Your task to perform on an android device: Open calendar and show me the fourth week of next month Image 0: 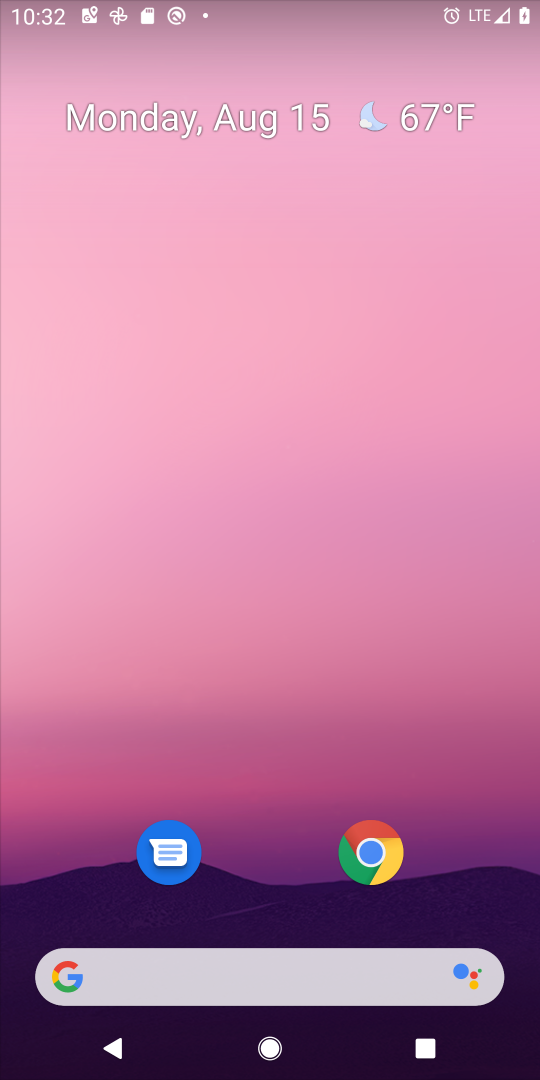
Step 0: drag from (258, 972) to (405, 43)
Your task to perform on an android device: Open calendar and show me the fourth week of next month Image 1: 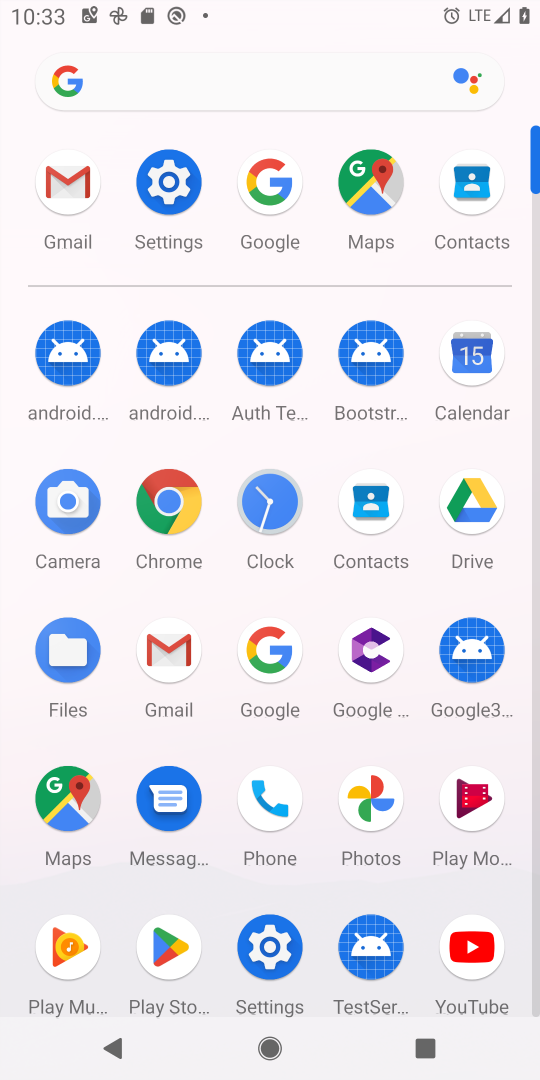
Step 1: click (467, 357)
Your task to perform on an android device: Open calendar and show me the fourth week of next month Image 2: 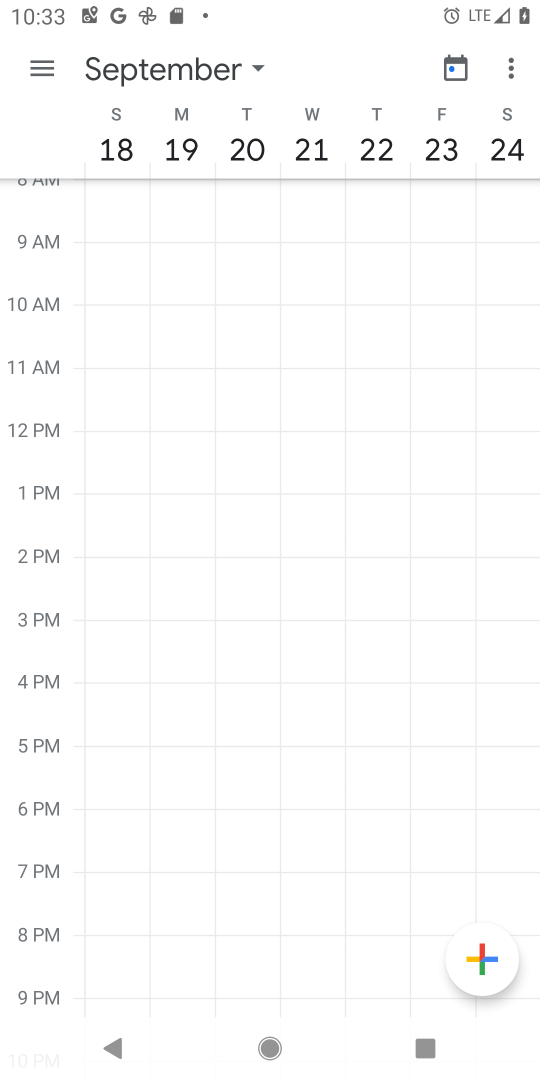
Step 2: click (457, 70)
Your task to perform on an android device: Open calendar and show me the fourth week of next month Image 3: 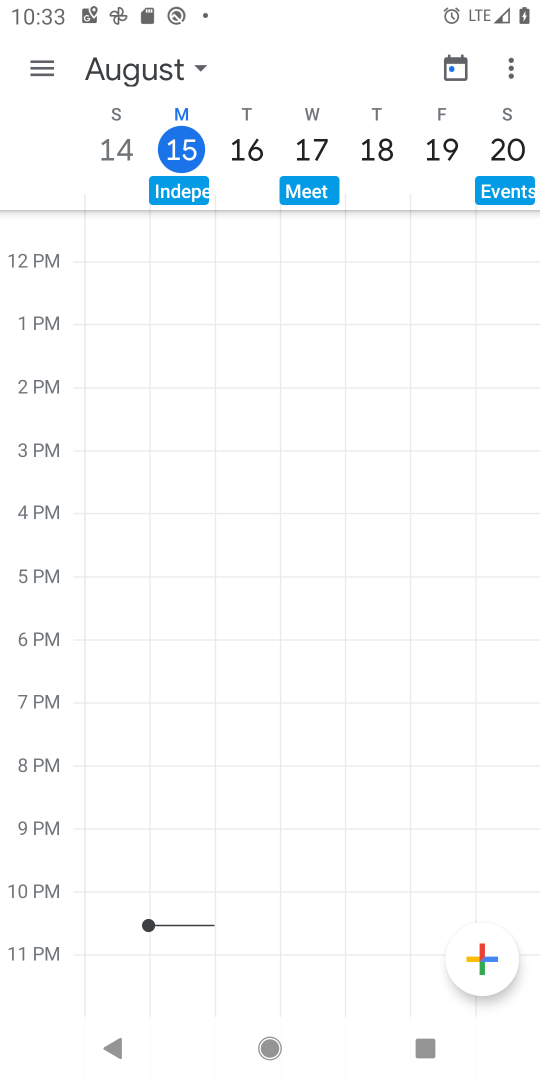
Step 3: click (200, 71)
Your task to perform on an android device: Open calendar and show me the fourth week of next month Image 4: 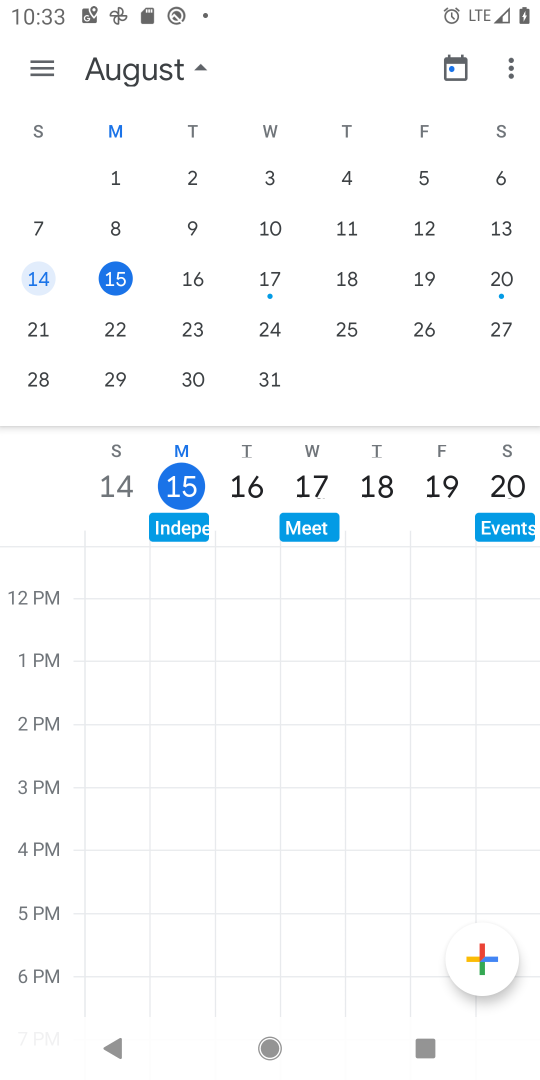
Step 4: drag from (472, 291) to (22, 356)
Your task to perform on an android device: Open calendar and show me the fourth week of next month Image 5: 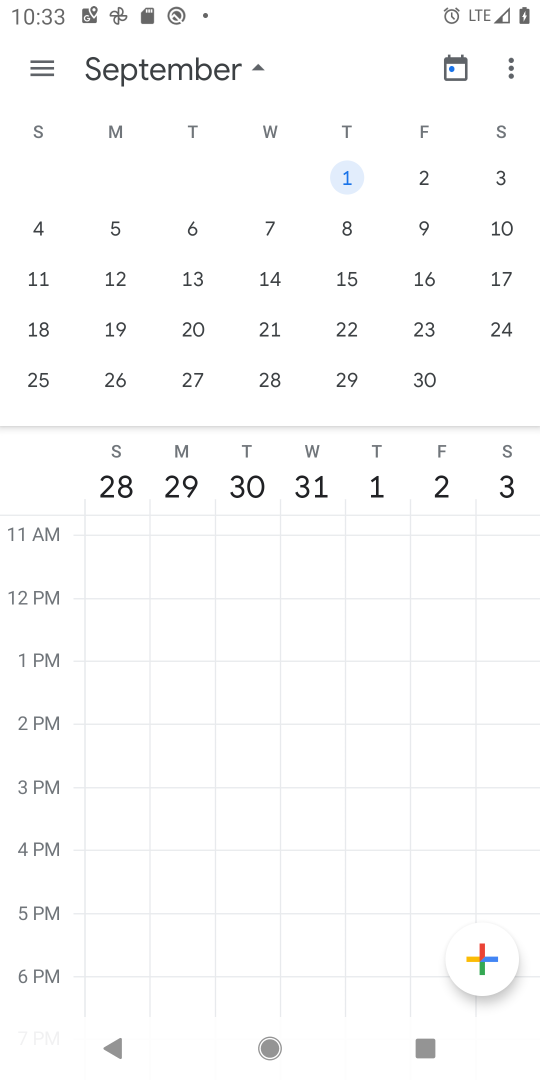
Step 5: click (113, 377)
Your task to perform on an android device: Open calendar and show me the fourth week of next month Image 6: 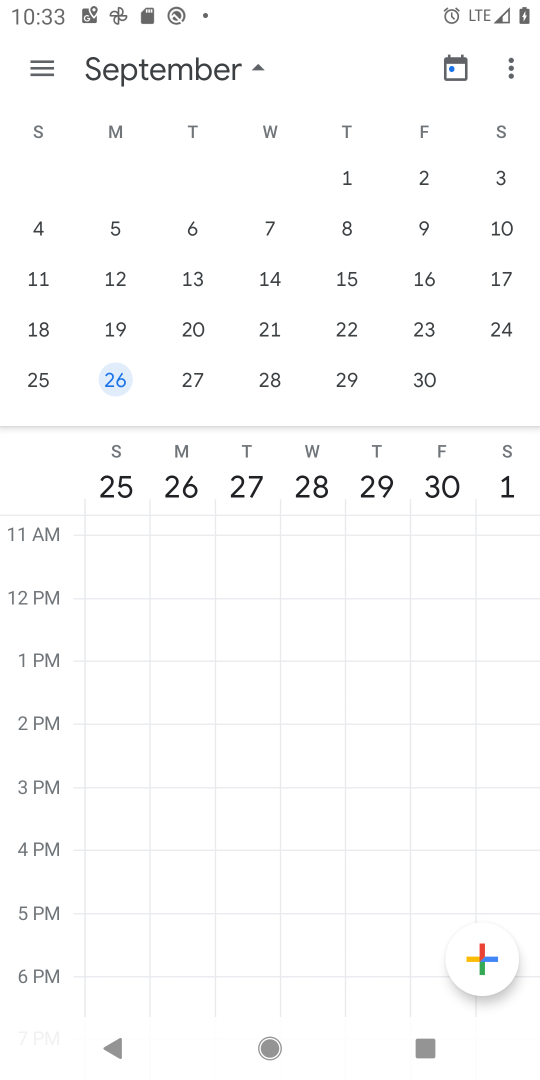
Step 6: click (42, 72)
Your task to perform on an android device: Open calendar and show me the fourth week of next month Image 7: 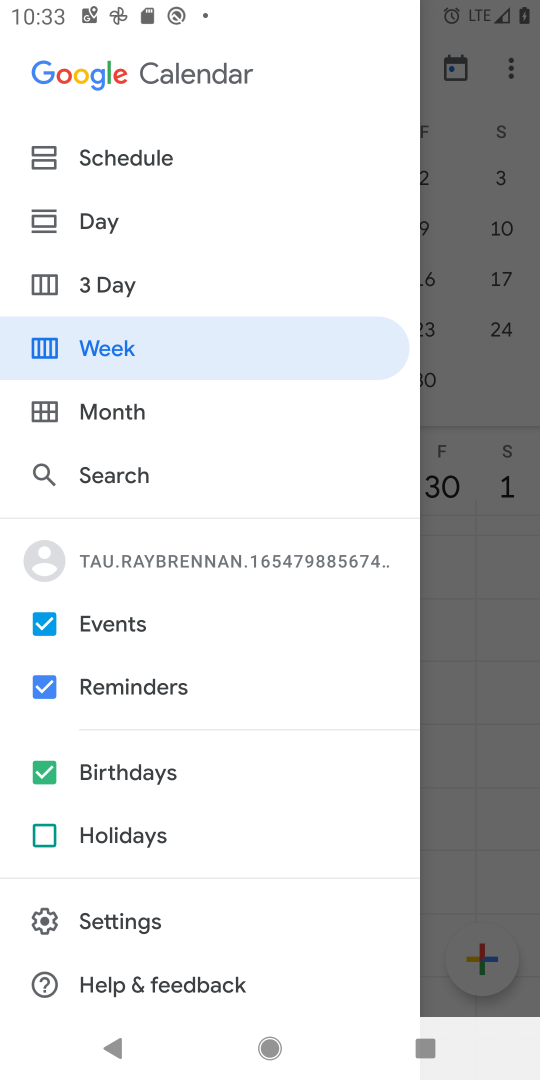
Step 7: click (107, 348)
Your task to perform on an android device: Open calendar and show me the fourth week of next month Image 8: 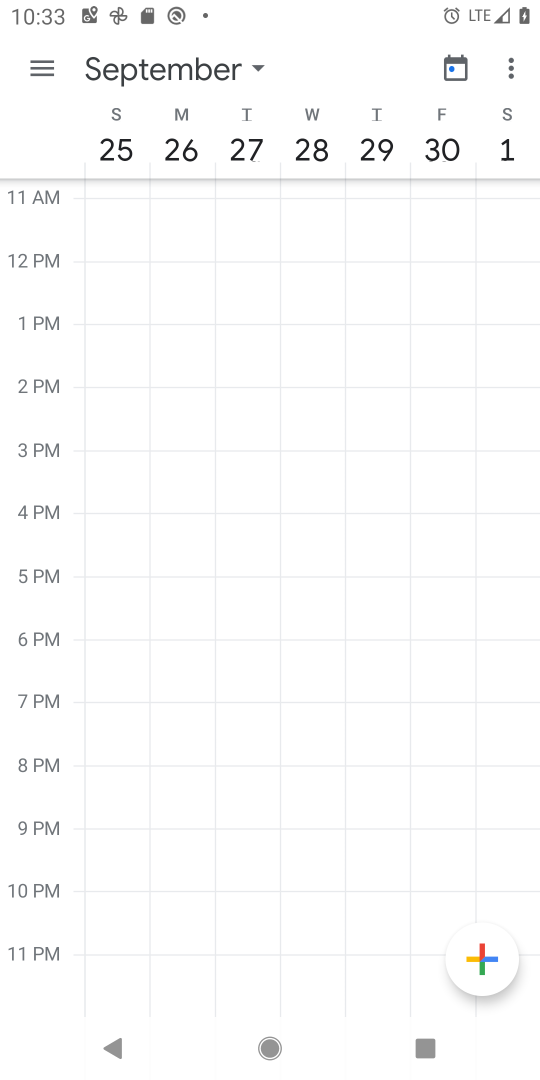
Step 8: task complete